Your task to perform on an android device: change the clock display to analog Image 0: 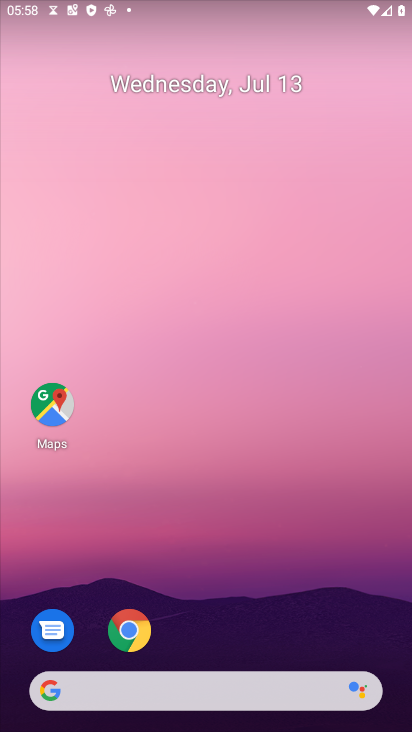
Step 0: drag from (268, 696) to (160, 6)
Your task to perform on an android device: change the clock display to analog Image 1: 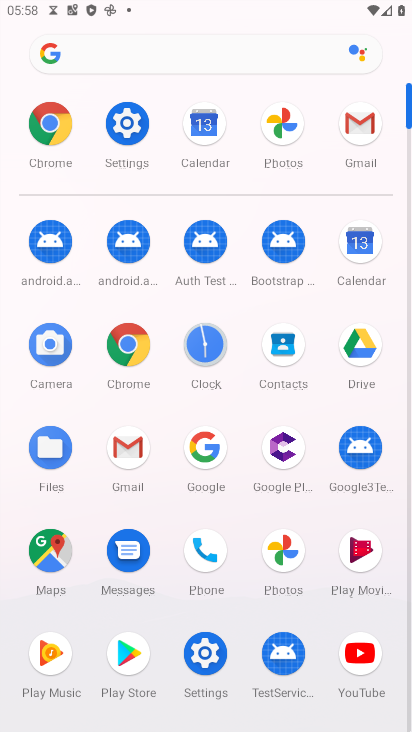
Step 1: click (205, 344)
Your task to perform on an android device: change the clock display to analog Image 2: 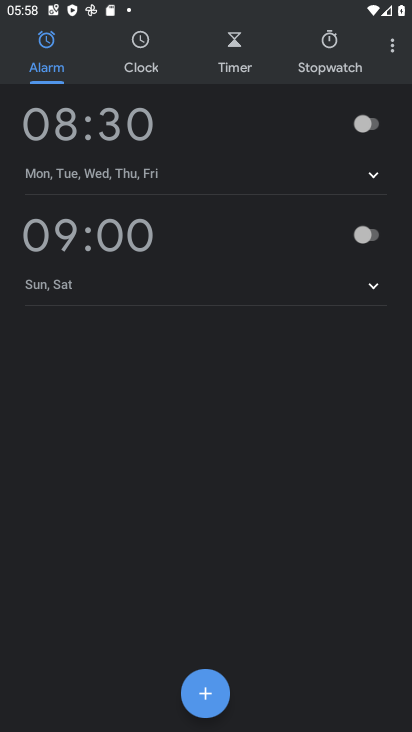
Step 2: click (394, 42)
Your task to perform on an android device: change the clock display to analog Image 3: 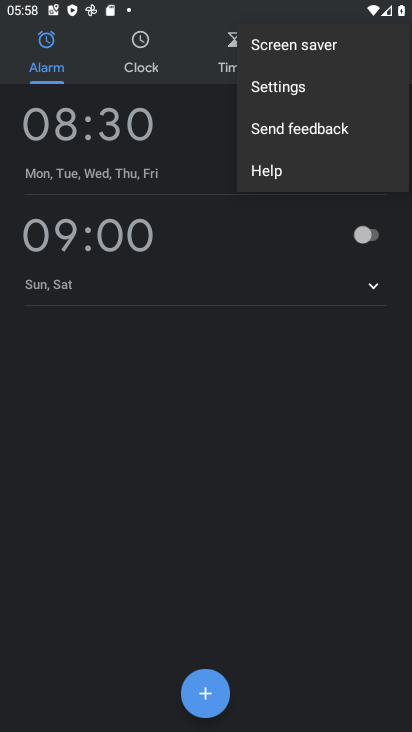
Step 3: click (330, 90)
Your task to perform on an android device: change the clock display to analog Image 4: 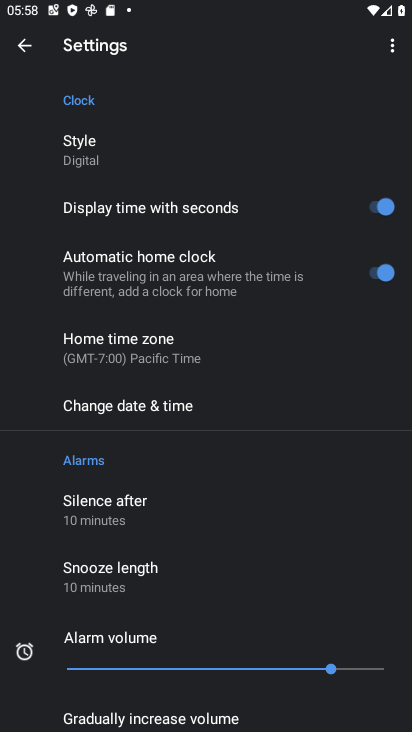
Step 4: click (139, 161)
Your task to perform on an android device: change the clock display to analog Image 5: 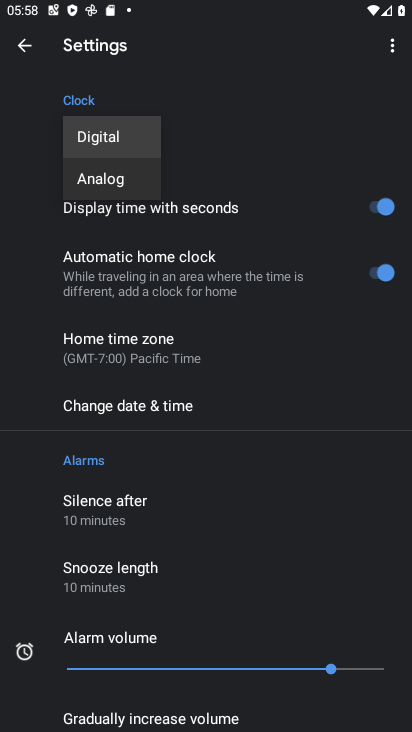
Step 5: click (95, 192)
Your task to perform on an android device: change the clock display to analog Image 6: 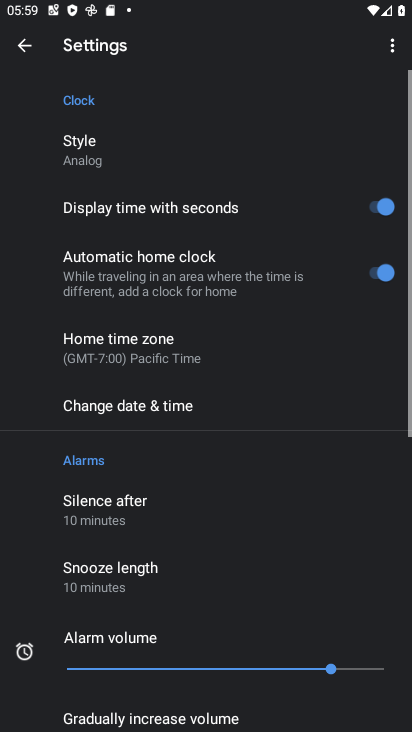
Step 6: task complete